Your task to perform on an android device: check data usage Image 0: 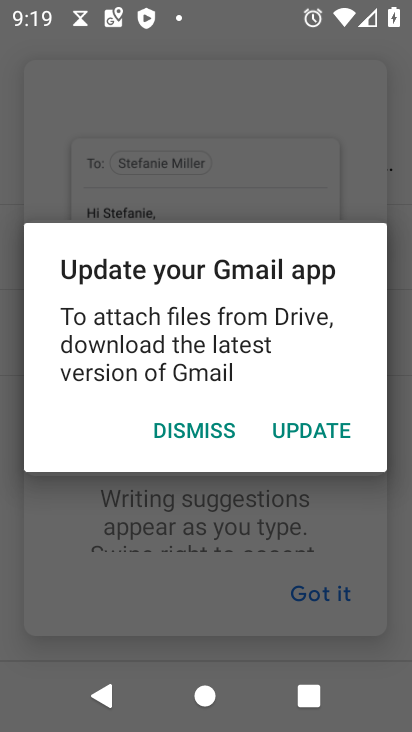
Step 0: press home button
Your task to perform on an android device: check data usage Image 1: 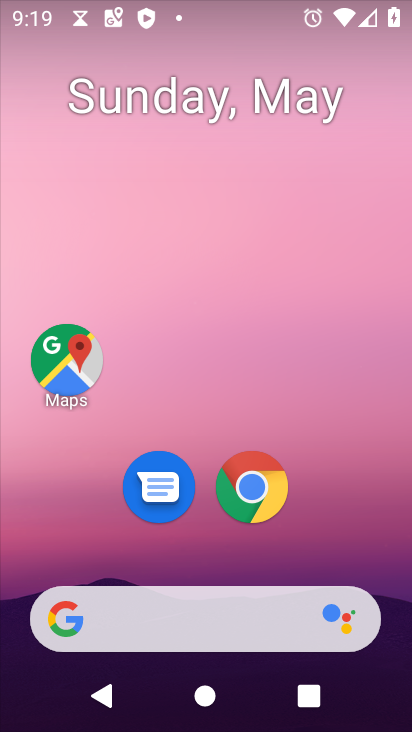
Step 1: drag from (342, 525) to (274, 98)
Your task to perform on an android device: check data usage Image 2: 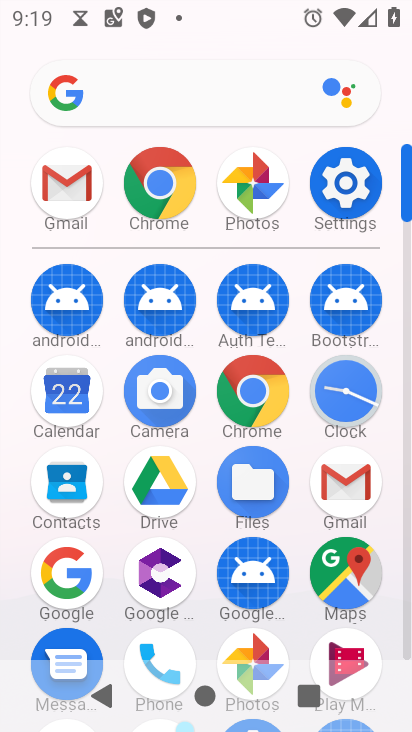
Step 2: click (356, 195)
Your task to perform on an android device: check data usage Image 3: 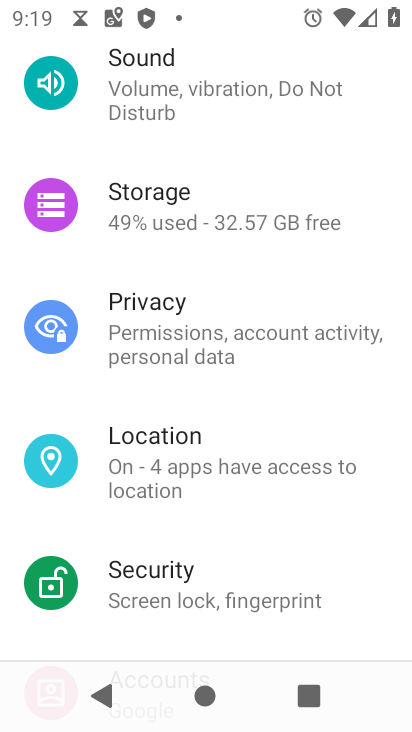
Step 3: drag from (287, 297) to (322, 490)
Your task to perform on an android device: check data usage Image 4: 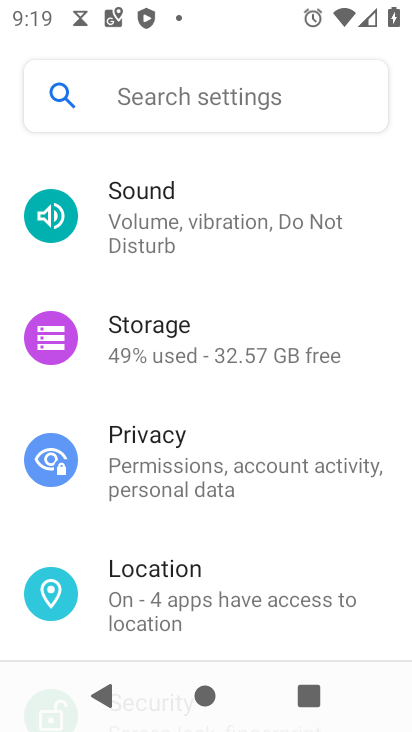
Step 4: drag from (297, 334) to (362, 444)
Your task to perform on an android device: check data usage Image 5: 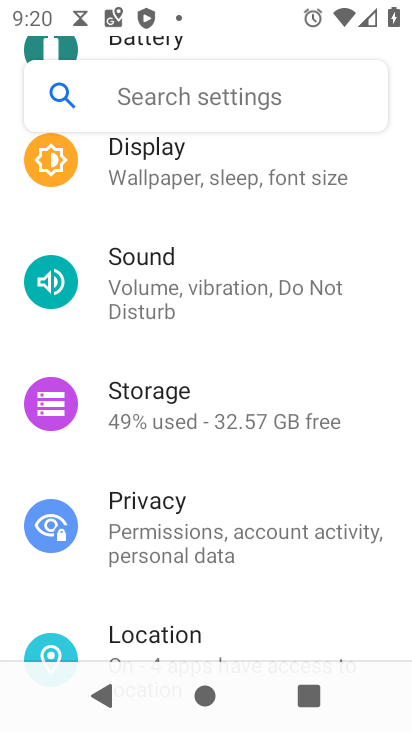
Step 5: drag from (218, 248) to (292, 470)
Your task to perform on an android device: check data usage Image 6: 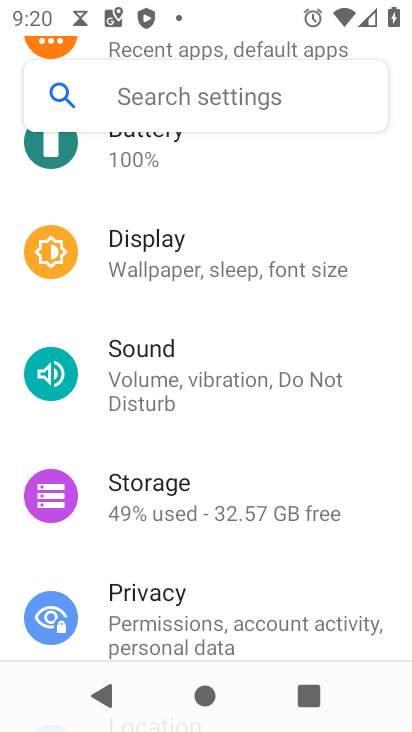
Step 6: drag from (238, 237) to (278, 463)
Your task to perform on an android device: check data usage Image 7: 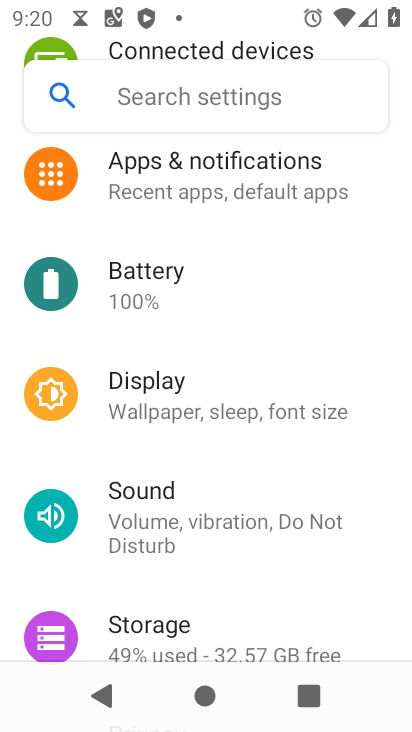
Step 7: drag from (246, 313) to (307, 412)
Your task to perform on an android device: check data usage Image 8: 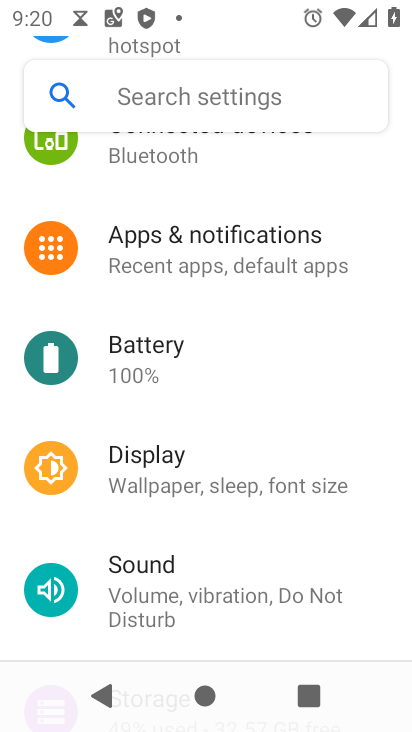
Step 8: drag from (238, 265) to (304, 388)
Your task to perform on an android device: check data usage Image 9: 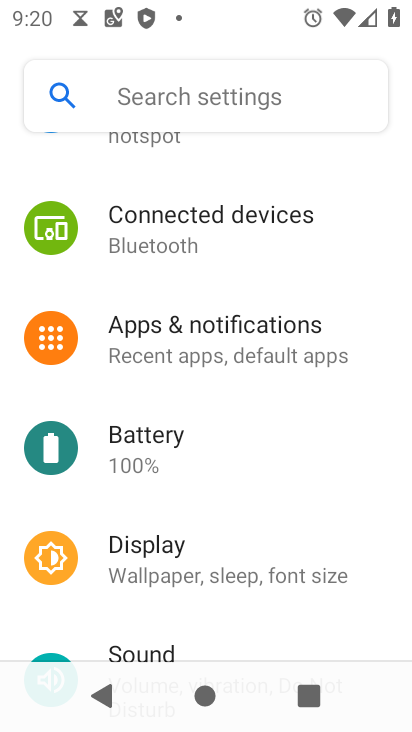
Step 9: drag from (267, 213) to (302, 367)
Your task to perform on an android device: check data usage Image 10: 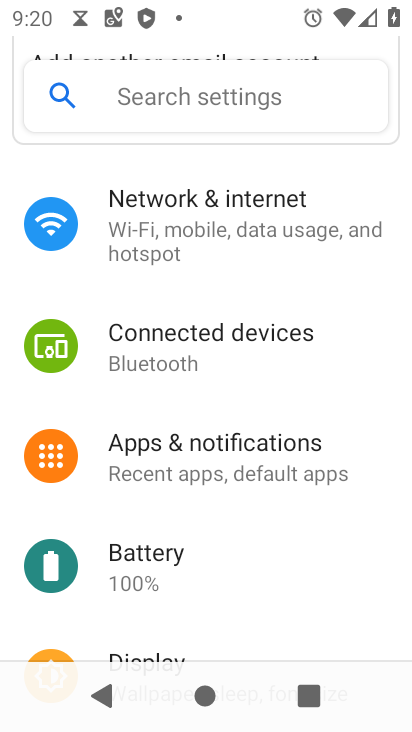
Step 10: click (187, 239)
Your task to perform on an android device: check data usage Image 11: 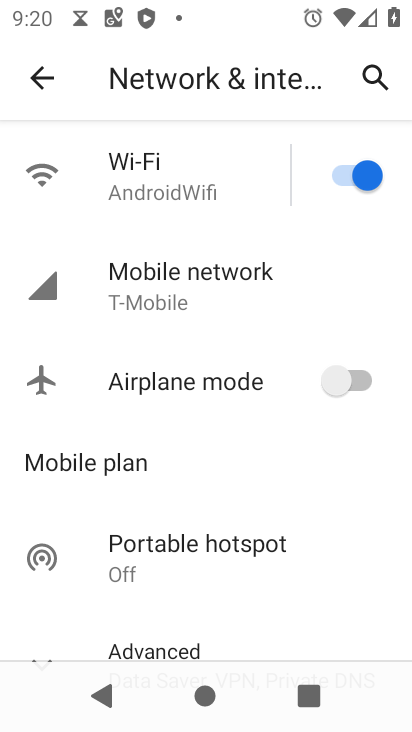
Step 11: click (182, 279)
Your task to perform on an android device: check data usage Image 12: 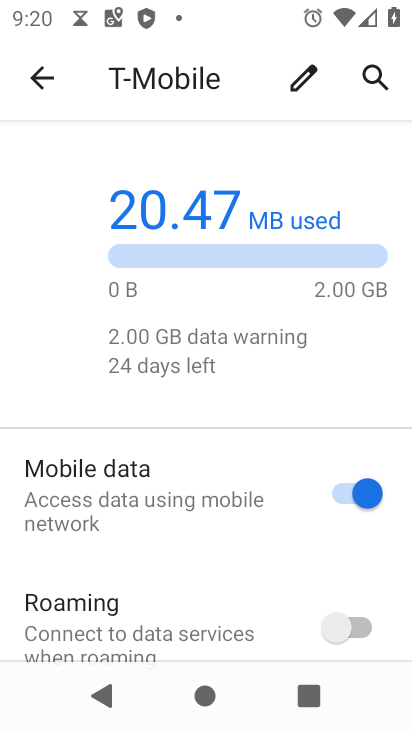
Step 12: task complete